Your task to perform on an android device: Open eBay Image 0: 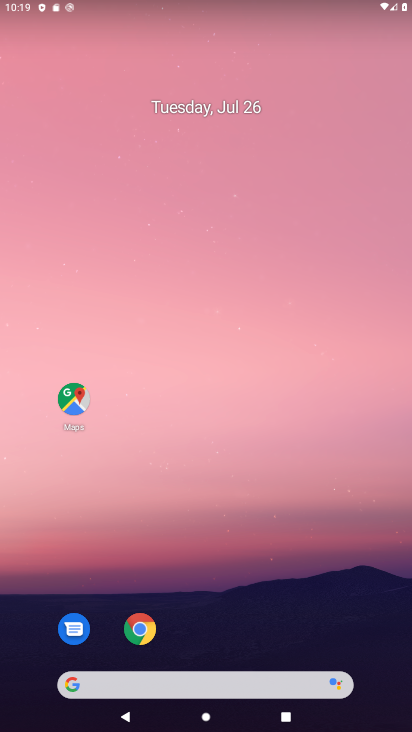
Step 0: drag from (348, 586) to (156, 33)
Your task to perform on an android device: Open eBay Image 1: 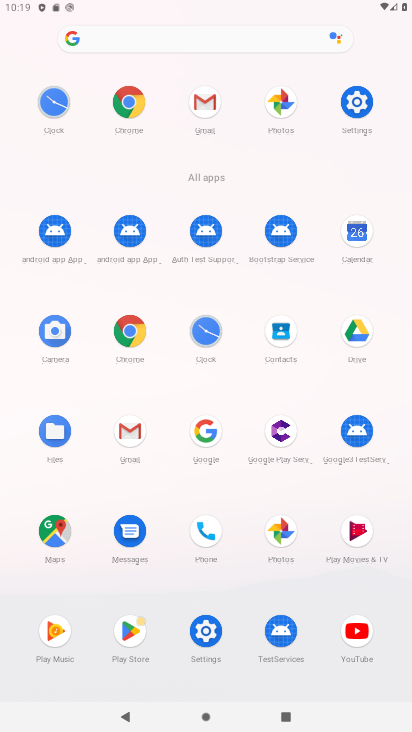
Step 1: click (200, 429)
Your task to perform on an android device: Open eBay Image 2: 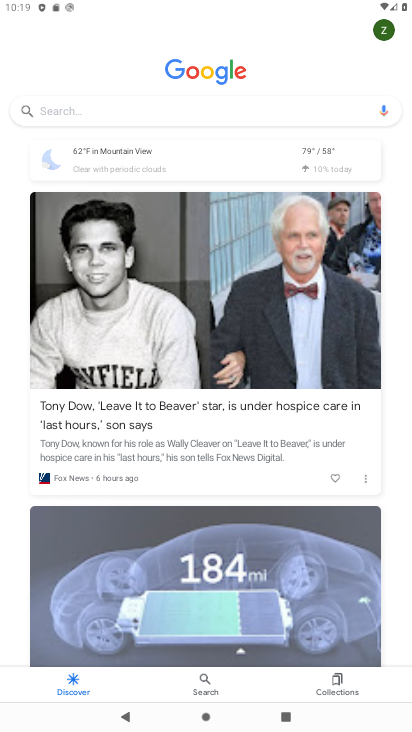
Step 2: click (79, 110)
Your task to perform on an android device: Open eBay Image 3: 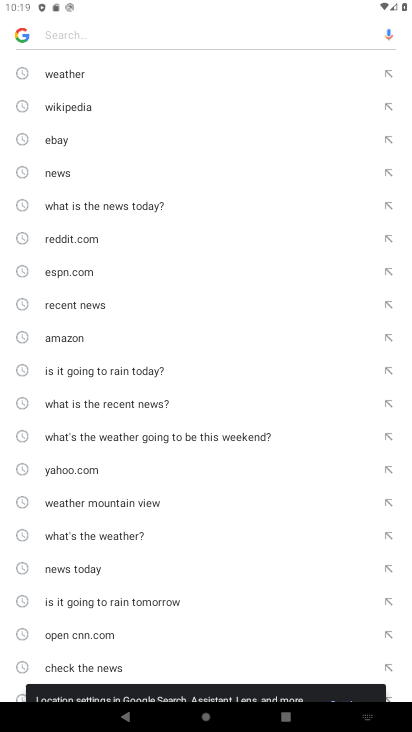
Step 3: click (62, 143)
Your task to perform on an android device: Open eBay Image 4: 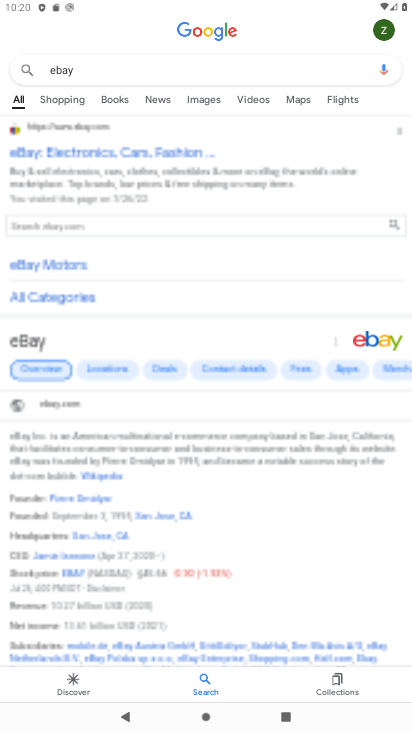
Step 4: task complete